Your task to perform on an android device: Open maps Image 0: 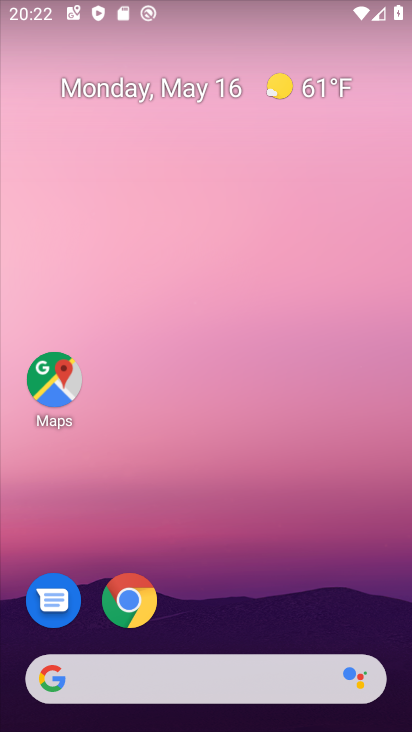
Step 0: click (69, 376)
Your task to perform on an android device: Open maps Image 1: 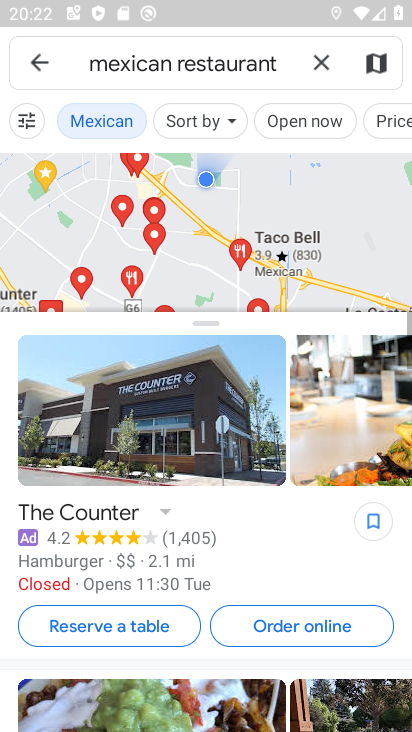
Step 1: task complete